Your task to perform on an android device: toggle show notifications on the lock screen Image 0: 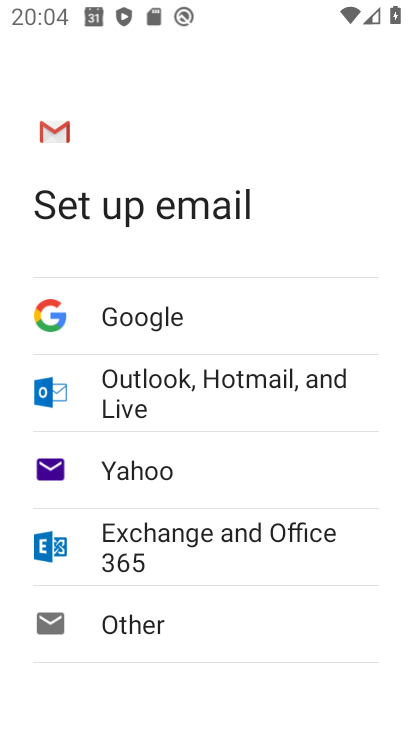
Step 0: press home button
Your task to perform on an android device: toggle show notifications on the lock screen Image 1: 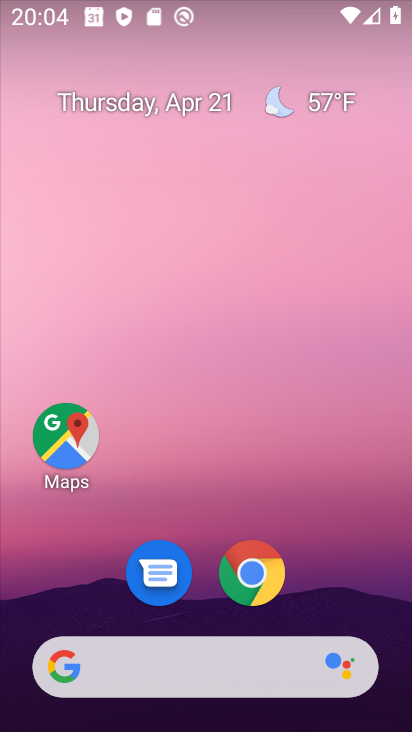
Step 1: drag from (212, 674) to (229, 155)
Your task to perform on an android device: toggle show notifications on the lock screen Image 2: 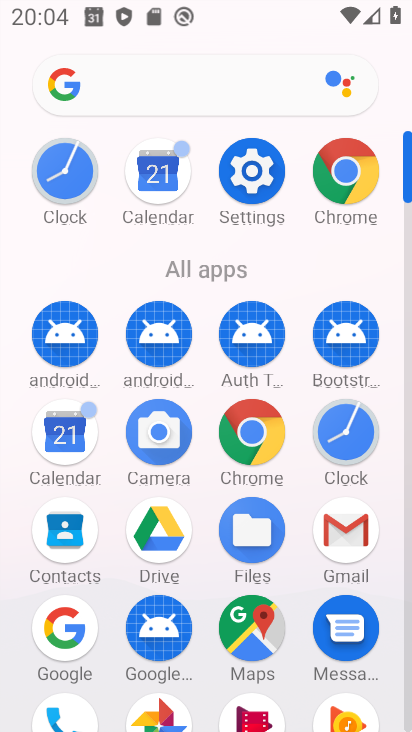
Step 2: click (252, 173)
Your task to perform on an android device: toggle show notifications on the lock screen Image 3: 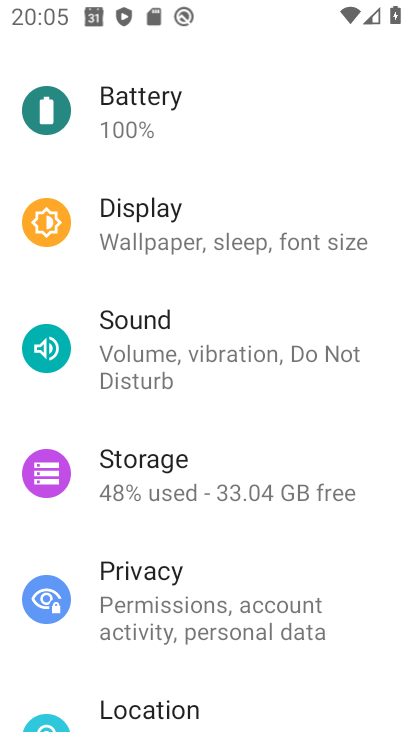
Step 3: drag from (227, 673) to (217, 335)
Your task to perform on an android device: toggle show notifications on the lock screen Image 4: 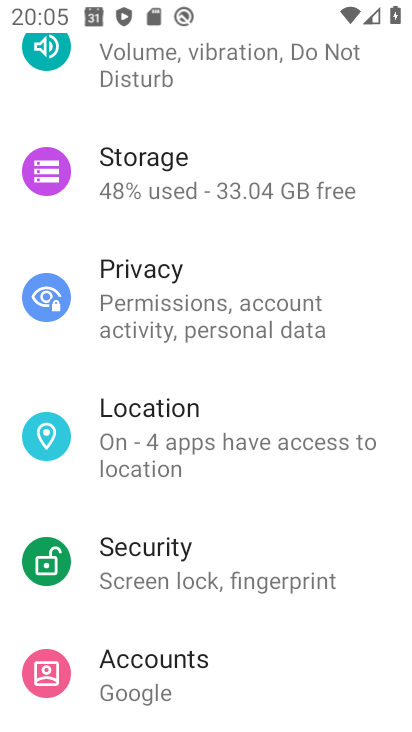
Step 4: drag from (242, 124) to (212, 599)
Your task to perform on an android device: toggle show notifications on the lock screen Image 5: 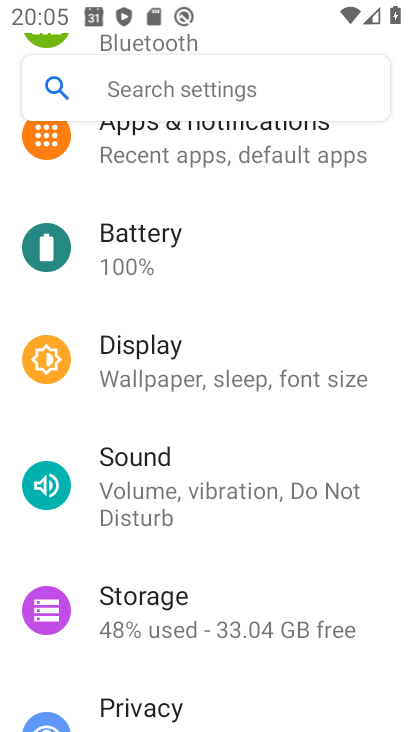
Step 5: drag from (236, 217) to (228, 479)
Your task to perform on an android device: toggle show notifications on the lock screen Image 6: 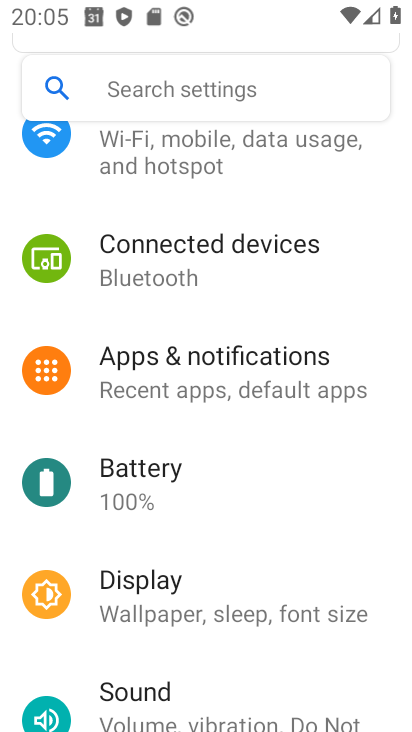
Step 6: click (179, 377)
Your task to perform on an android device: toggle show notifications on the lock screen Image 7: 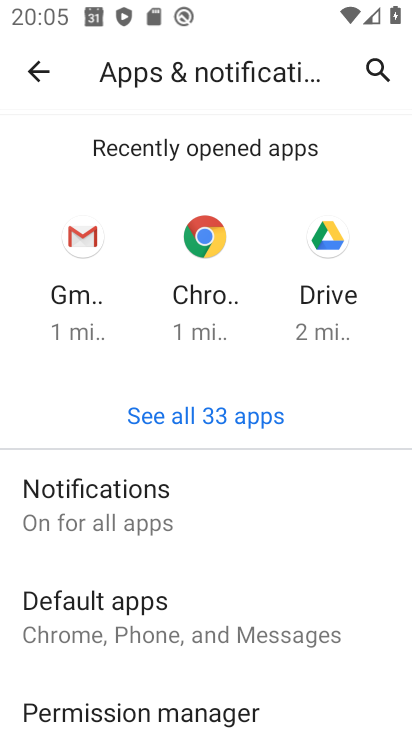
Step 7: click (119, 511)
Your task to perform on an android device: toggle show notifications on the lock screen Image 8: 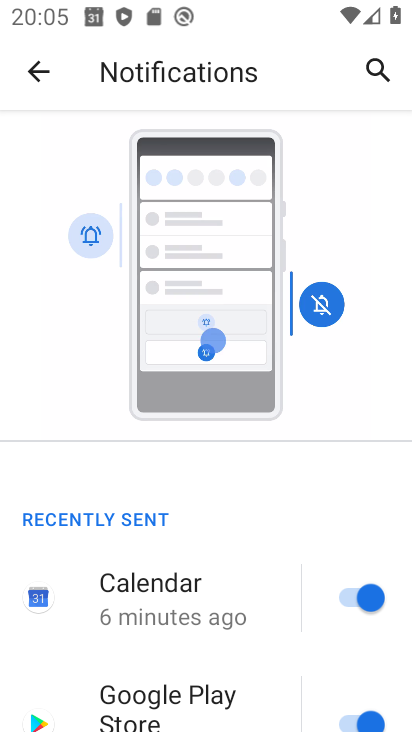
Step 8: drag from (196, 668) to (196, 326)
Your task to perform on an android device: toggle show notifications on the lock screen Image 9: 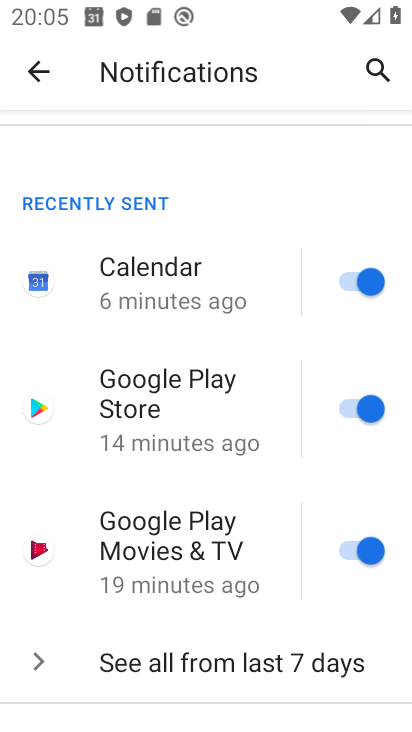
Step 9: drag from (184, 694) to (188, 359)
Your task to perform on an android device: toggle show notifications on the lock screen Image 10: 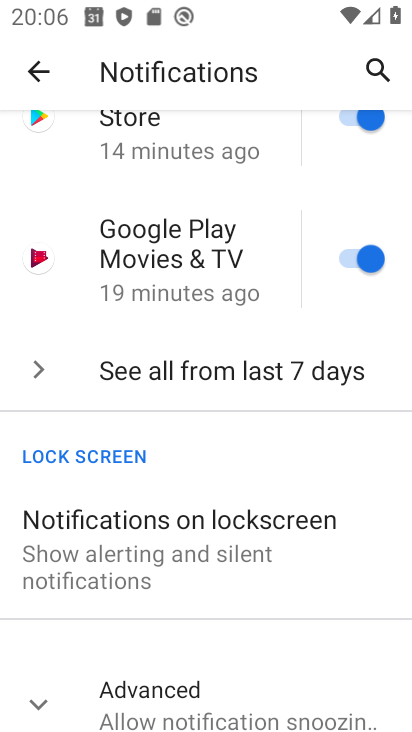
Step 10: click (152, 545)
Your task to perform on an android device: toggle show notifications on the lock screen Image 11: 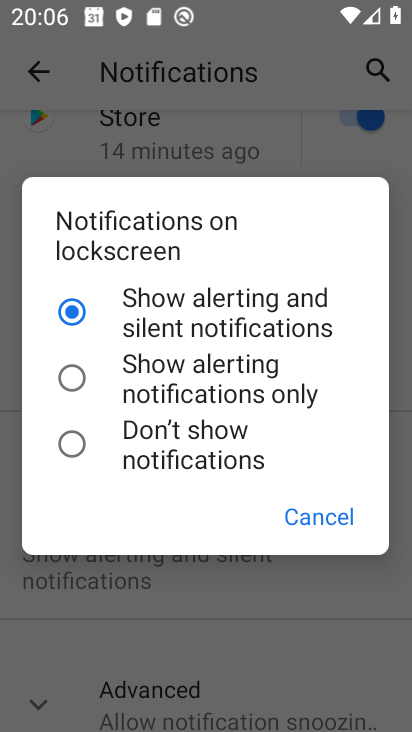
Step 11: click (73, 371)
Your task to perform on an android device: toggle show notifications on the lock screen Image 12: 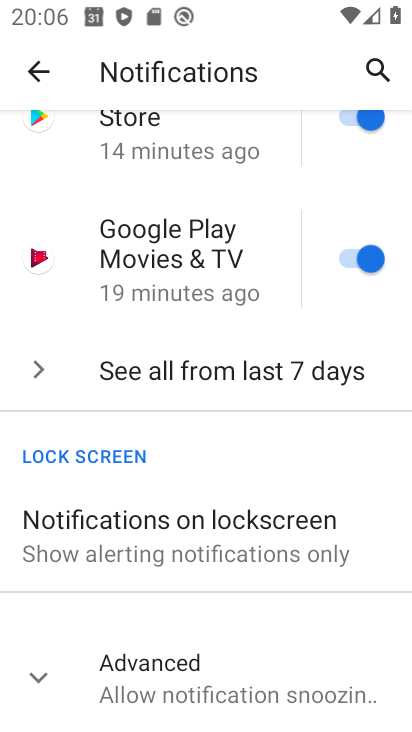
Step 12: task complete